Your task to perform on an android device: Go to wifi settings Image 0: 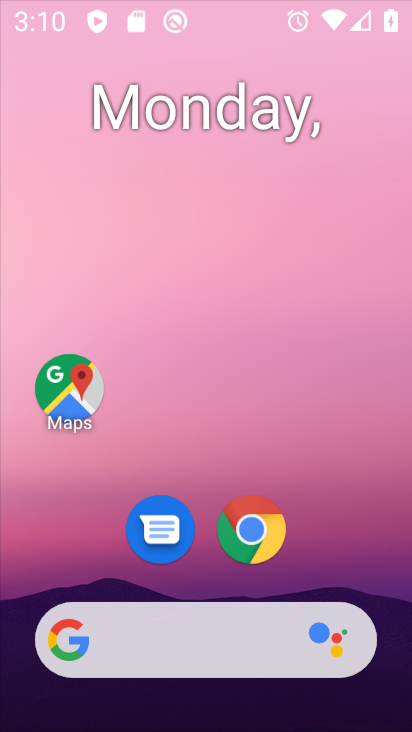
Step 0: click (312, 218)
Your task to perform on an android device: Go to wifi settings Image 1: 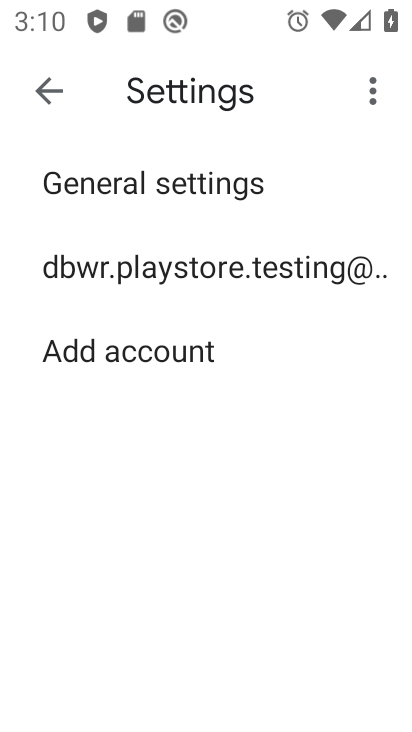
Step 1: press home button
Your task to perform on an android device: Go to wifi settings Image 2: 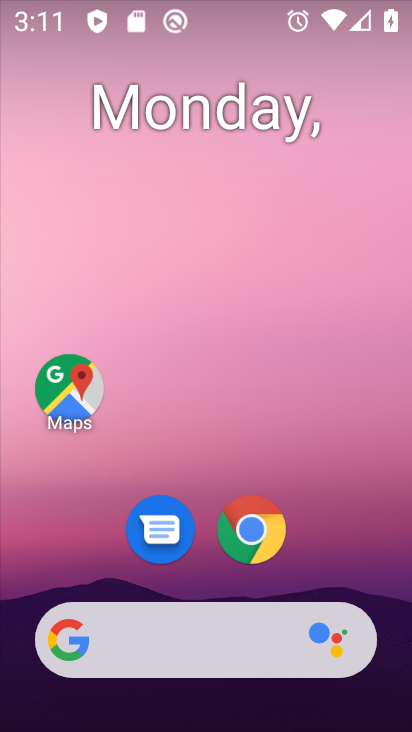
Step 2: drag from (231, 482) to (325, 25)
Your task to perform on an android device: Go to wifi settings Image 3: 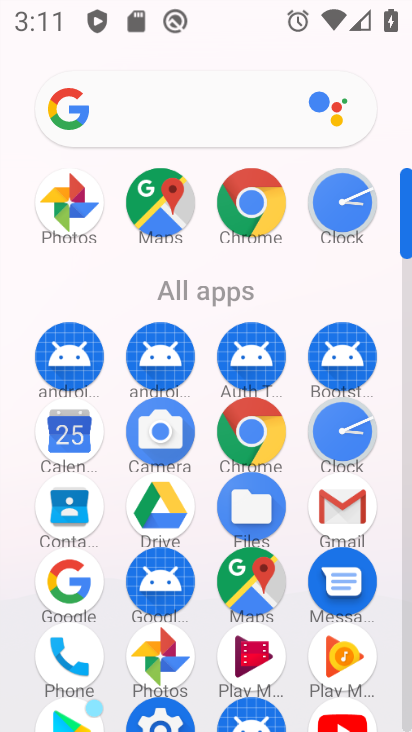
Step 3: drag from (186, 584) to (218, 270)
Your task to perform on an android device: Go to wifi settings Image 4: 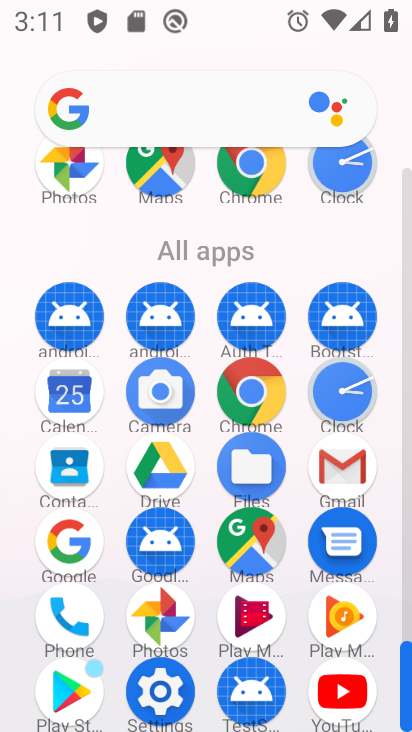
Step 4: click (156, 697)
Your task to perform on an android device: Go to wifi settings Image 5: 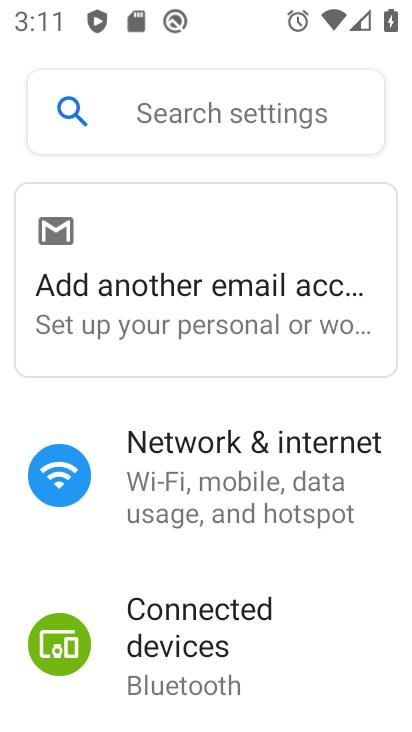
Step 5: click (211, 499)
Your task to perform on an android device: Go to wifi settings Image 6: 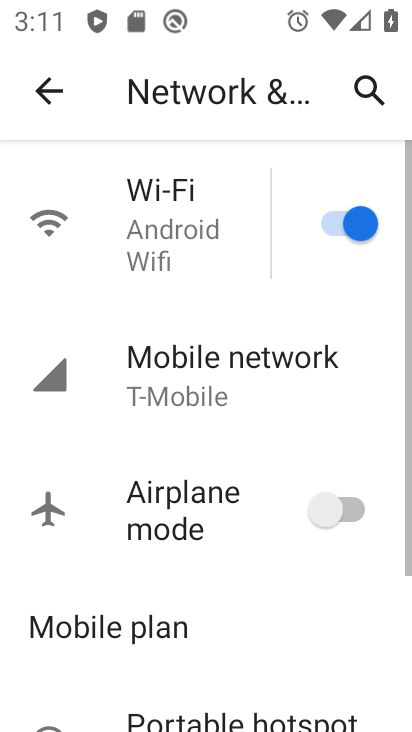
Step 6: click (171, 255)
Your task to perform on an android device: Go to wifi settings Image 7: 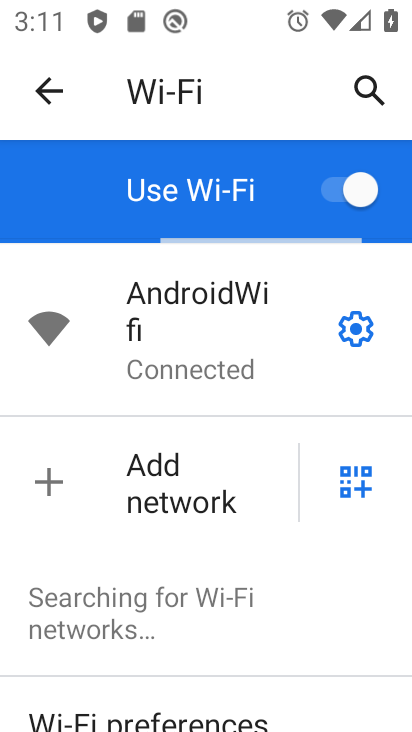
Step 7: task complete